Your task to perform on an android device: Search for vegetarian restaurants on Maps Image 0: 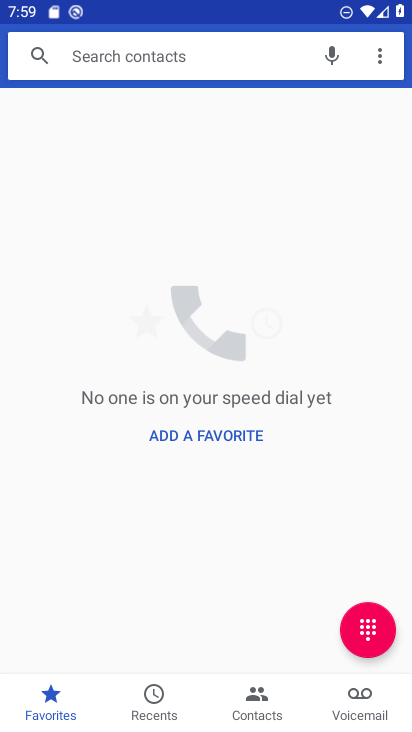
Step 0: press home button
Your task to perform on an android device: Search for vegetarian restaurants on Maps Image 1: 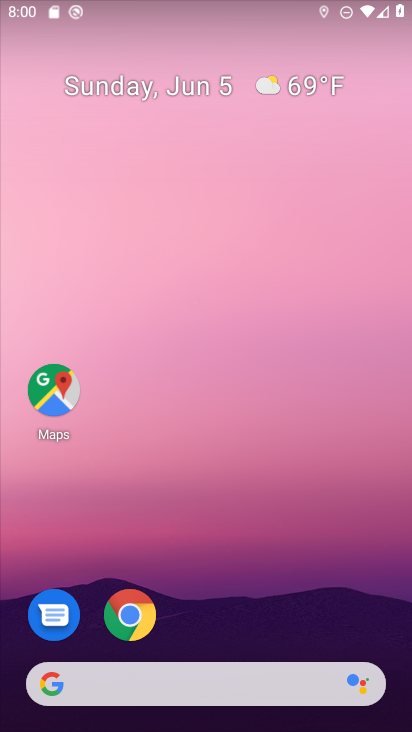
Step 1: click (52, 397)
Your task to perform on an android device: Search for vegetarian restaurants on Maps Image 2: 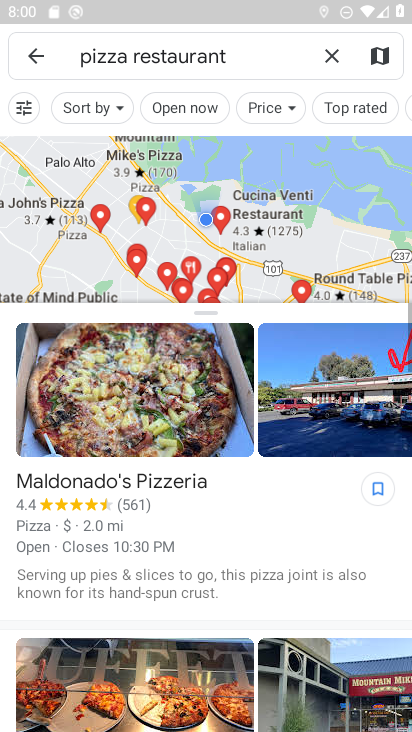
Step 2: click (328, 55)
Your task to perform on an android device: Search for vegetarian restaurants on Maps Image 3: 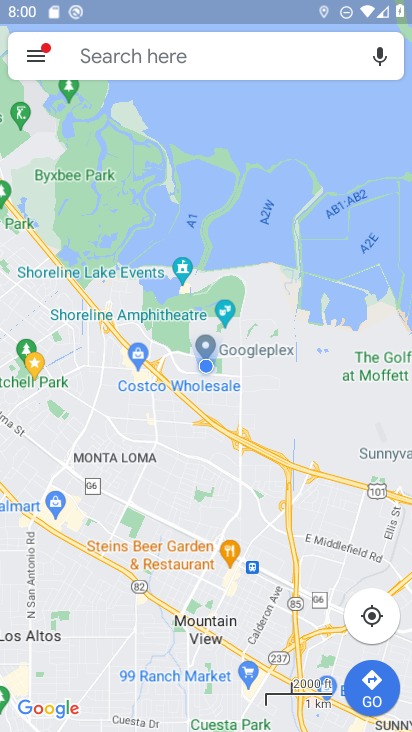
Step 3: click (178, 52)
Your task to perform on an android device: Search for vegetarian restaurants on Maps Image 4: 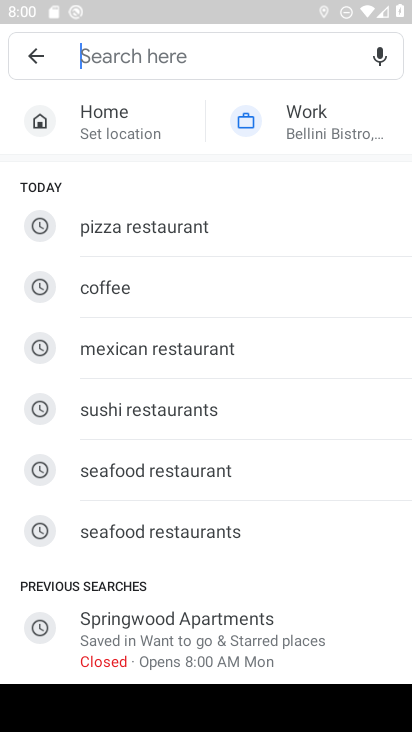
Step 4: type "vegetarian restaurants"
Your task to perform on an android device: Search for vegetarian restaurants on Maps Image 5: 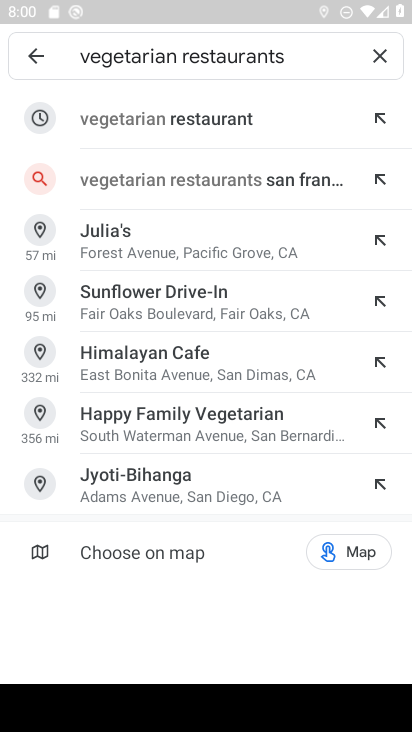
Step 5: click (177, 117)
Your task to perform on an android device: Search for vegetarian restaurants on Maps Image 6: 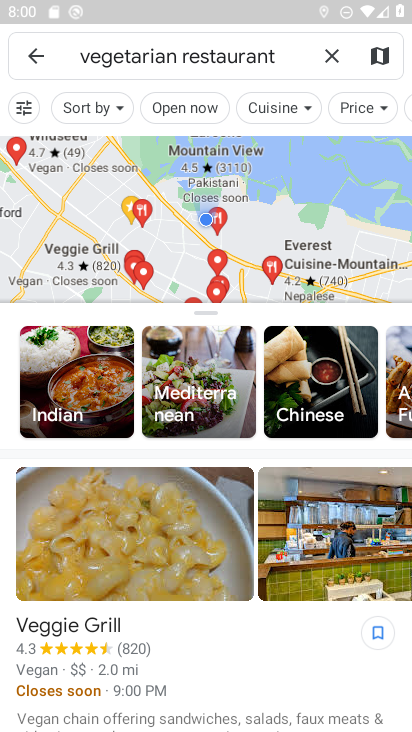
Step 6: task complete